Your task to perform on an android device: Open Reddit.com Image 0: 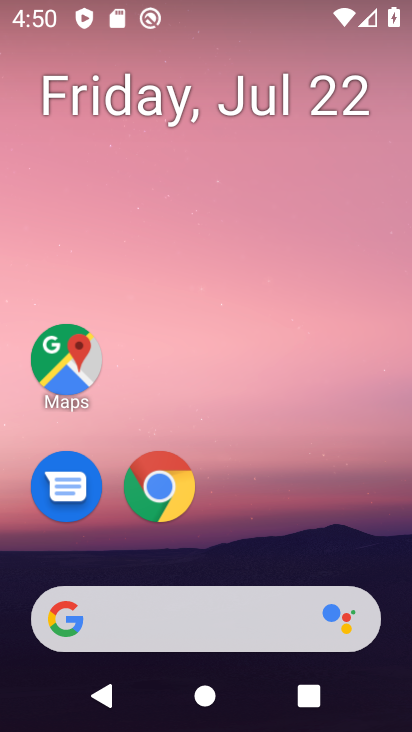
Step 0: press home button
Your task to perform on an android device: Open Reddit.com Image 1: 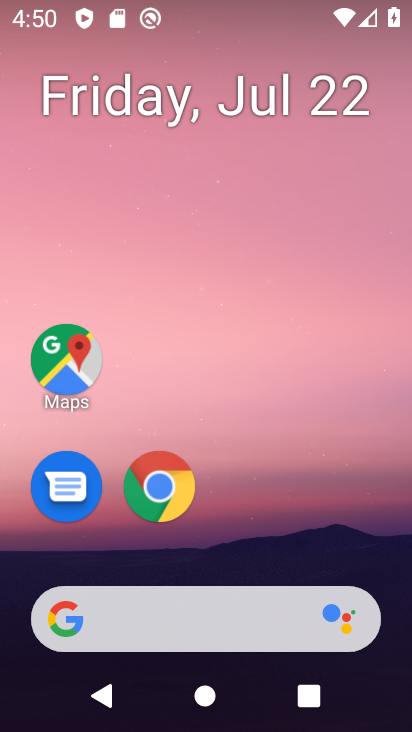
Step 1: drag from (393, 593) to (220, 63)
Your task to perform on an android device: Open Reddit.com Image 2: 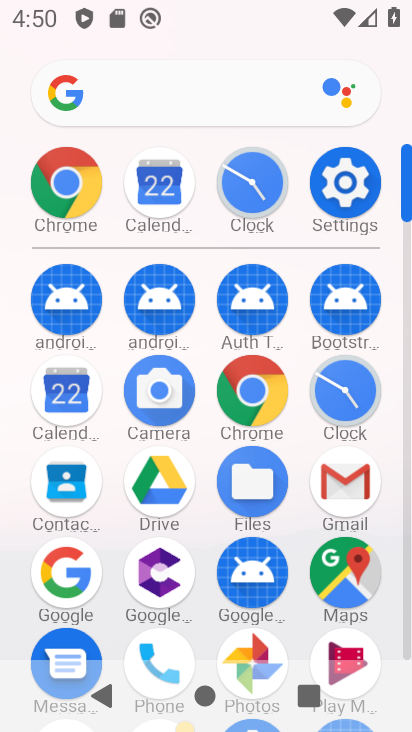
Step 2: click (91, 164)
Your task to perform on an android device: Open Reddit.com Image 3: 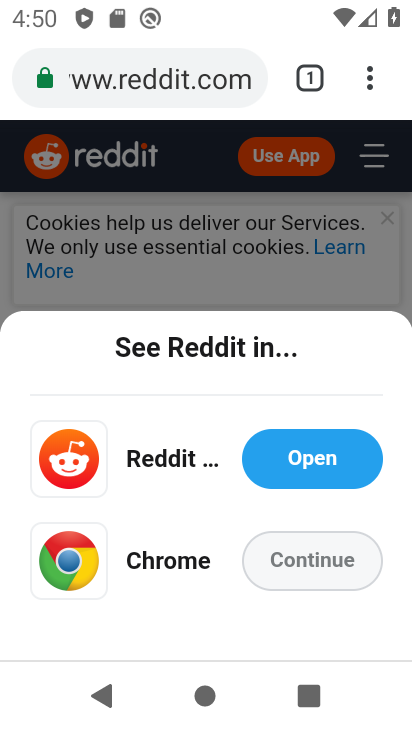
Step 3: task complete